Your task to perform on an android device: find which apps use the phone's location Image 0: 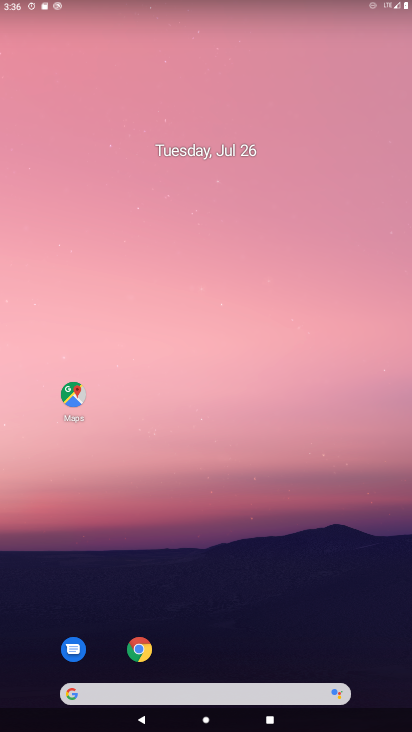
Step 0: drag from (339, 663) to (281, 27)
Your task to perform on an android device: find which apps use the phone's location Image 1: 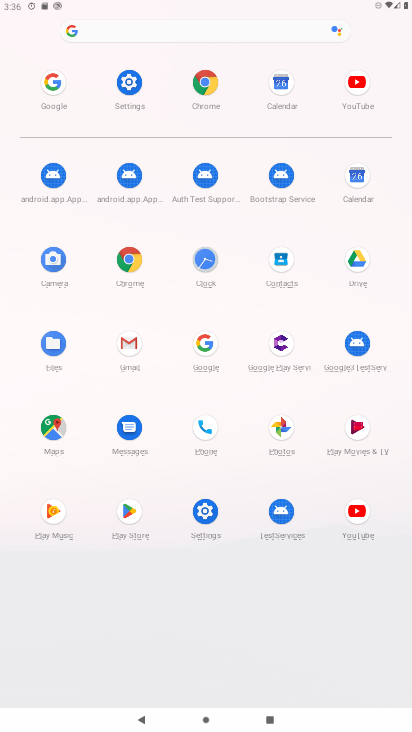
Step 1: click (204, 506)
Your task to perform on an android device: find which apps use the phone's location Image 2: 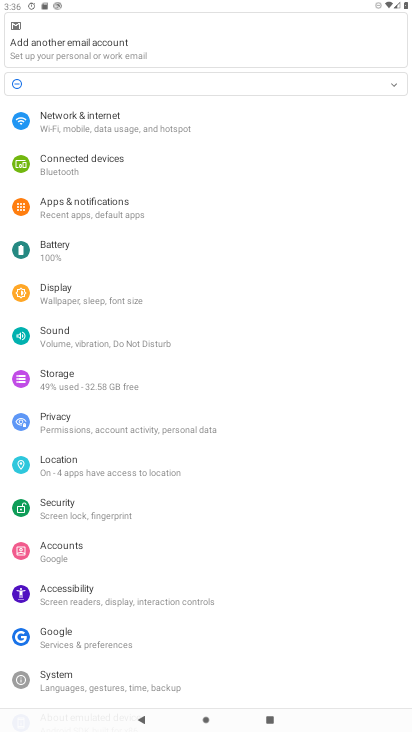
Step 2: click (74, 470)
Your task to perform on an android device: find which apps use the phone's location Image 3: 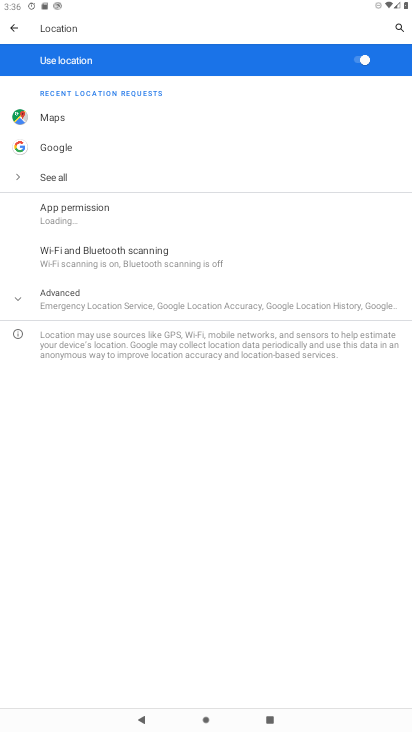
Step 3: click (103, 216)
Your task to perform on an android device: find which apps use the phone's location Image 4: 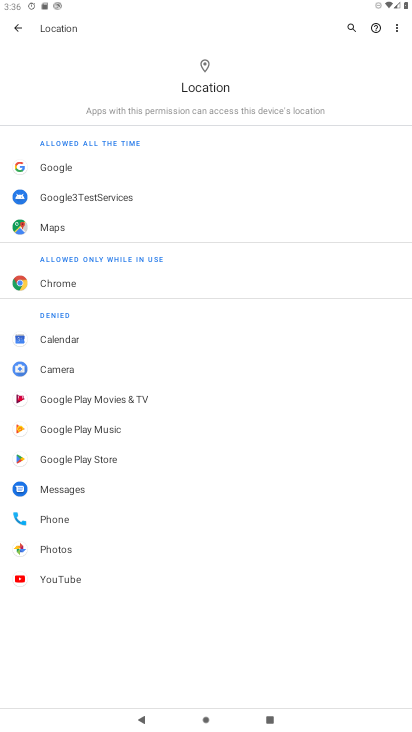
Step 4: click (5, 520)
Your task to perform on an android device: find which apps use the phone's location Image 5: 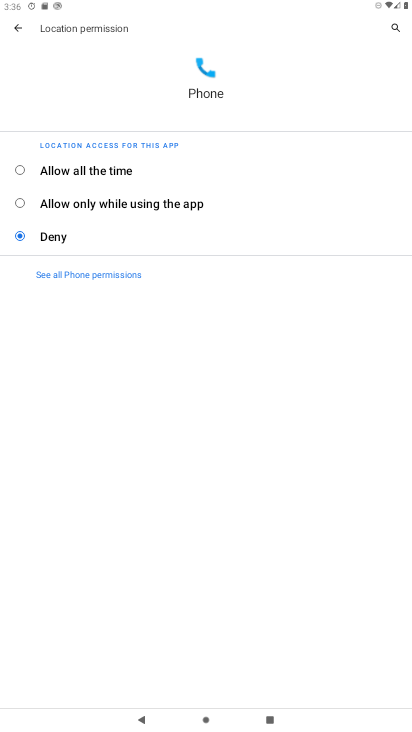
Step 5: click (116, 160)
Your task to perform on an android device: find which apps use the phone's location Image 6: 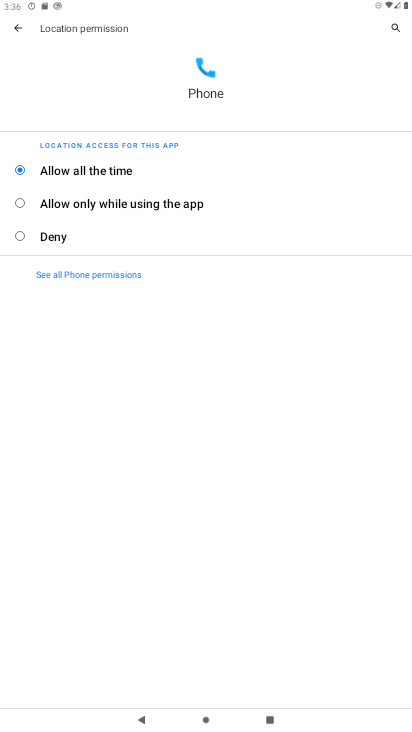
Step 6: task complete